Your task to perform on an android device: turn off data saver in the chrome app Image 0: 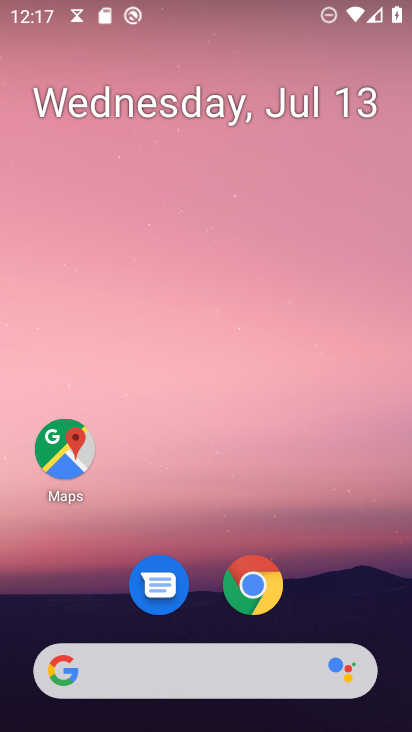
Step 0: press home button
Your task to perform on an android device: turn off data saver in the chrome app Image 1: 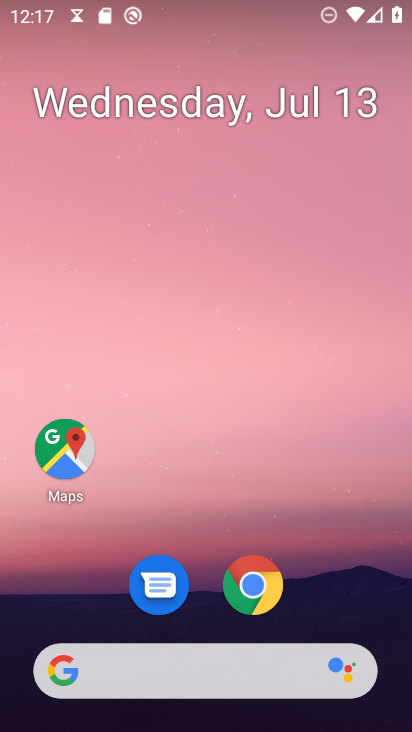
Step 1: click (257, 578)
Your task to perform on an android device: turn off data saver in the chrome app Image 2: 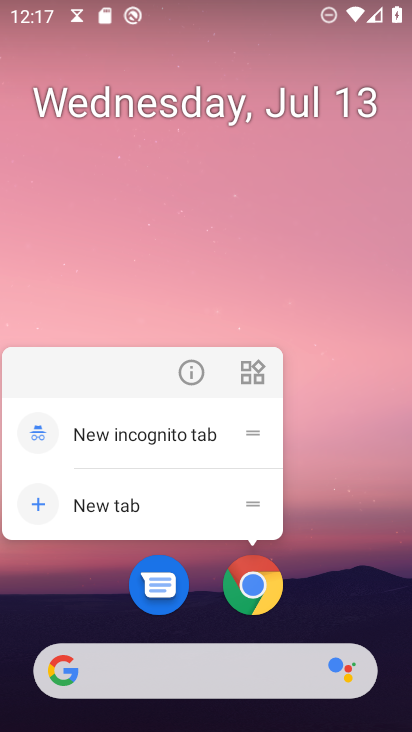
Step 2: click (249, 594)
Your task to perform on an android device: turn off data saver in the chrome app Image 3: 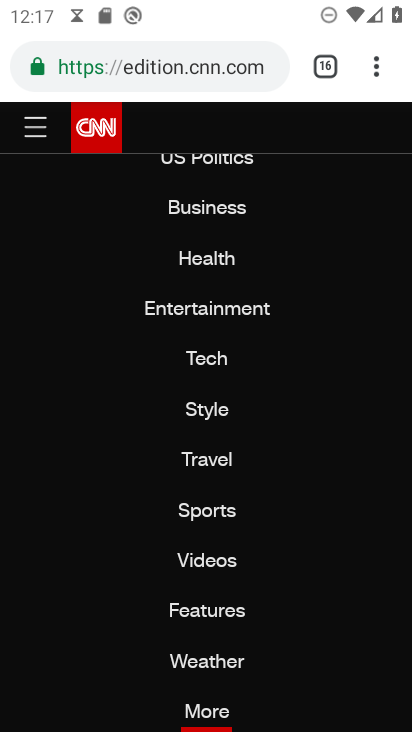
Step 3: drag from (376, 76) to (215, 591)
Your task to perform on an android device: turn off data saver in the chrome app Image 4: 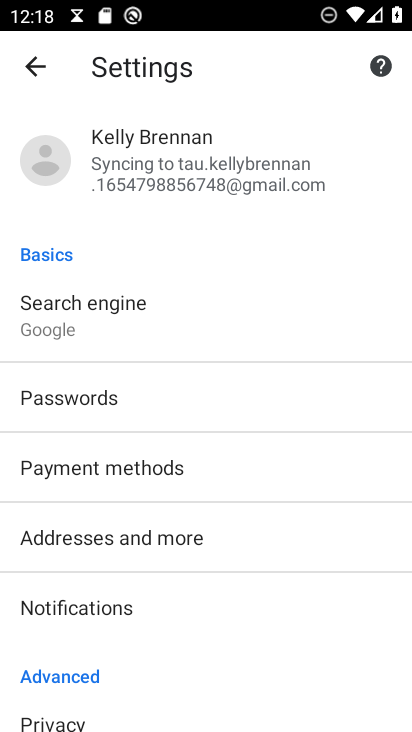
Step 4: drag from (161, 648) to (270, 220)
Your task to perform on an android device: turn off data saver in the chrome app Image 5: 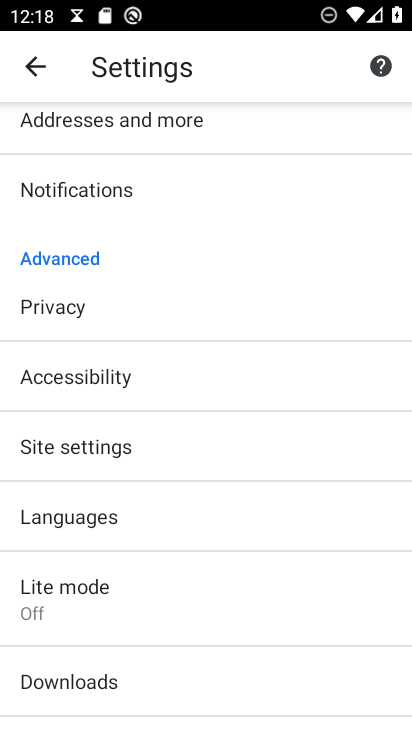
Step 5: click (88, 586)
Your task to perform on an android device: turn off data saver in the chrome app Image 6: 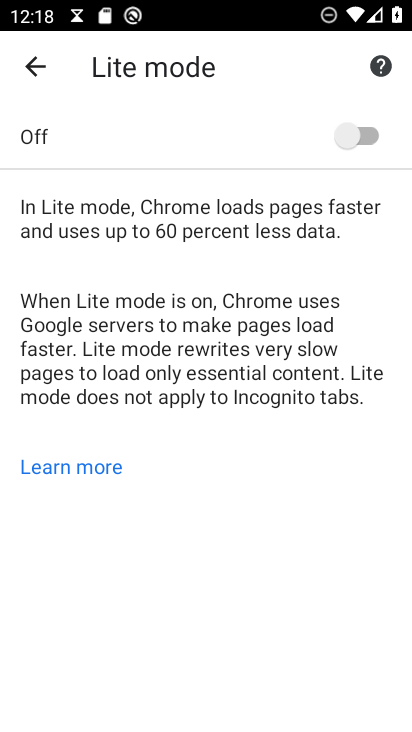
Step 6: task complete